Your task to perform on an android device: Open calendar and show me the second week of next month Image 0: 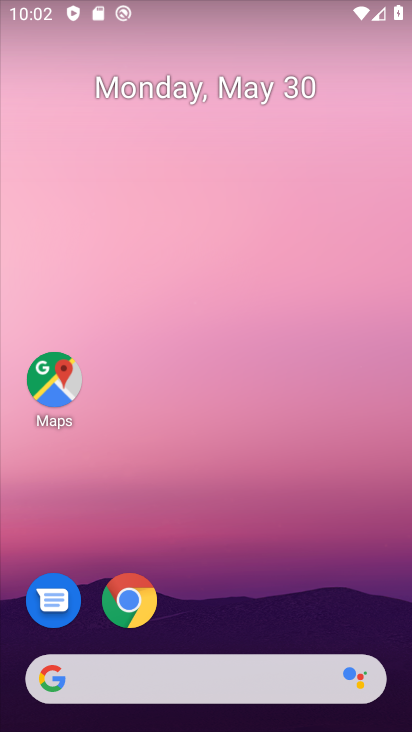
Step 0: drag from (260, 636) to (356, 55)
Your task to perform on an android device: Open calendar and show me the second week of next month Image 1: 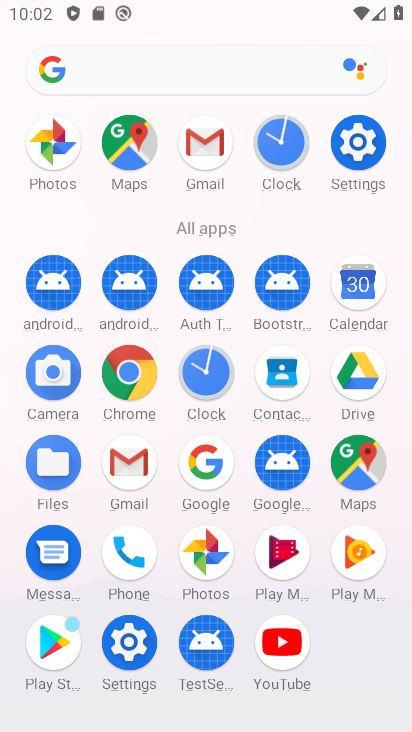
Step 1: click (354, 288)
Your task to perform on an android device: Open calendar and show me the second week of next month Image 2: 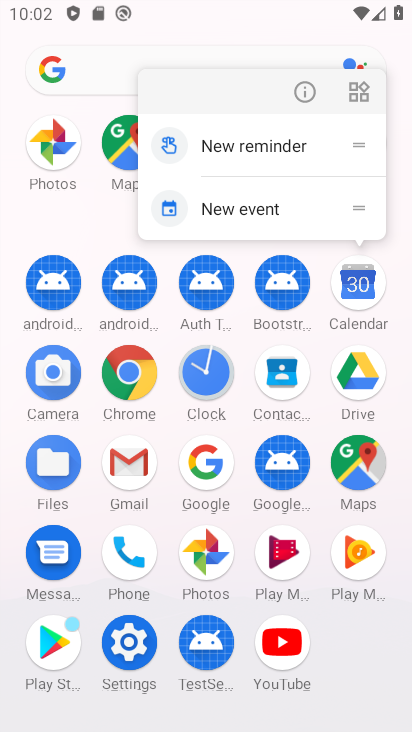
Step 2: click (355, 287)
Your task to perform on an android device: Open calendar and show me the second week of next month Image 3: 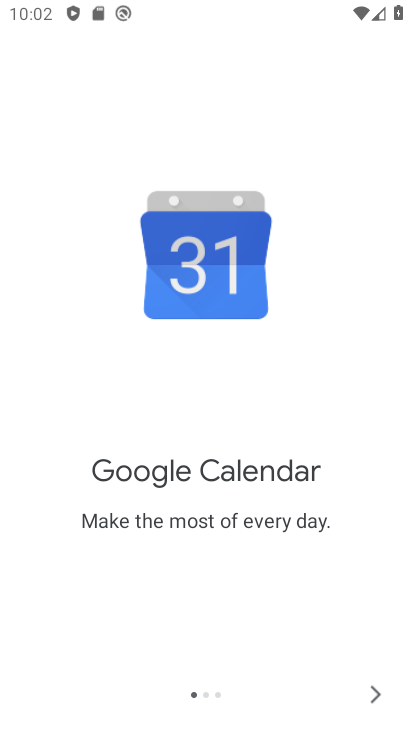
Step 3: click (375, 700)
Your task to perform on an android device: Open calendar and show me the second week of next month Image 4: 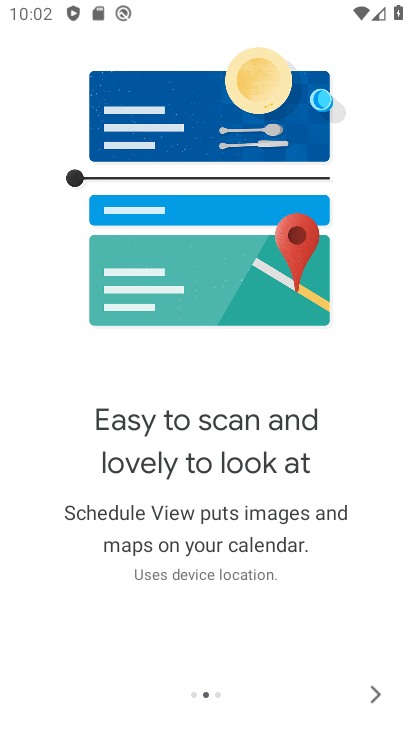
Step 4: click (374, 699)
Your task to perform on an android device: Open calendar and show me the second week of next month Image 5: 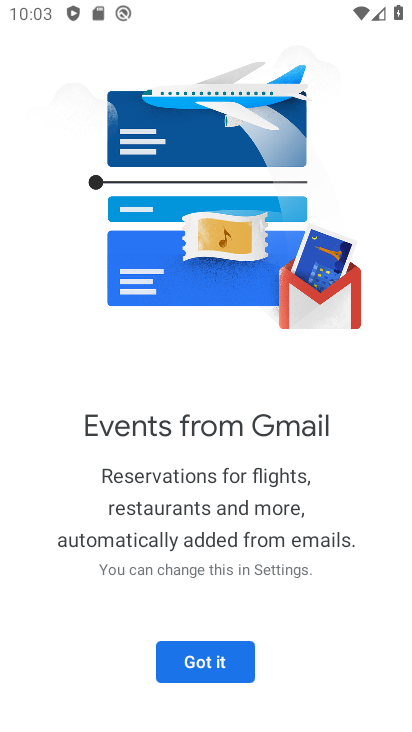
Step 5: click (205, 665)
Your task to perform on an android device: Open calendar and show me the second week of next month Image 6: 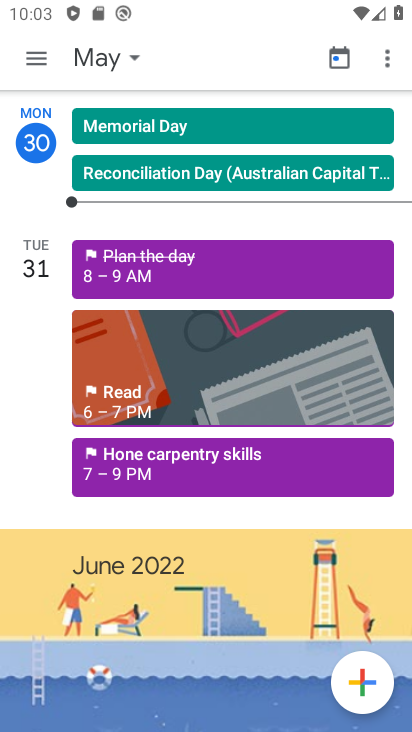
Step 6: click (88, 60)
Your task to perform on an android device: Open calendar and show me the second week of next month Image 7: 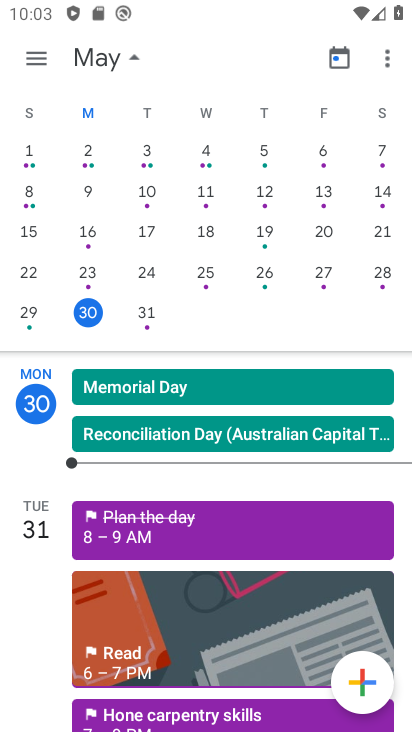
Step 7: drag from (355, 314) to (4, 266)
Your task to perform on an android device: Open calendar and show me the second week of next month Image 8: 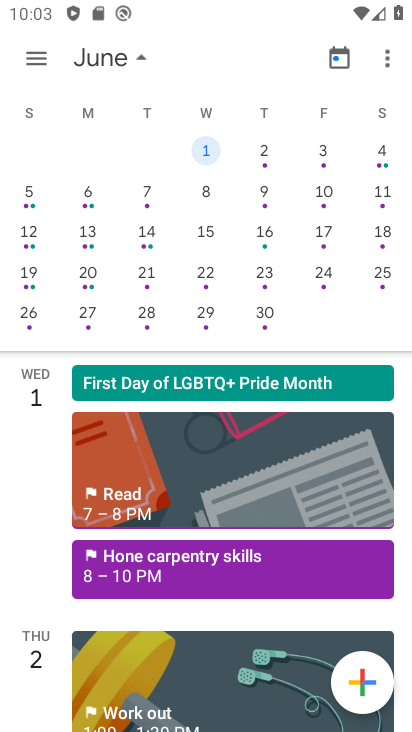
Step 8: click (34, 239)
Your task to perform on an android device: Open calendar and show me the second week of next month Image 9: 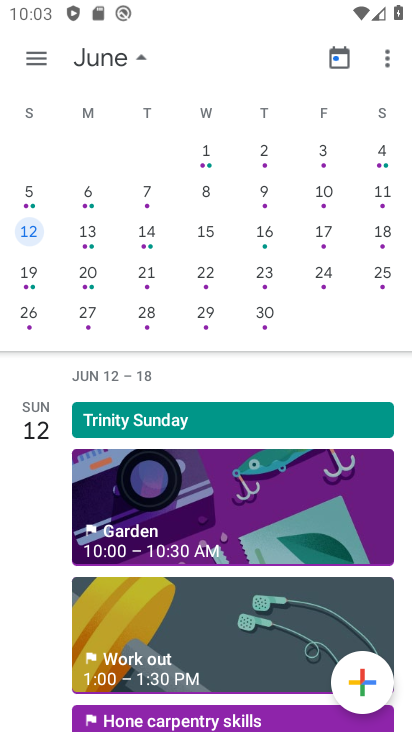
Step 9: click (49, 58)
Your task to perform on an android device: Open calendar and show me the second week of next month Image 10: 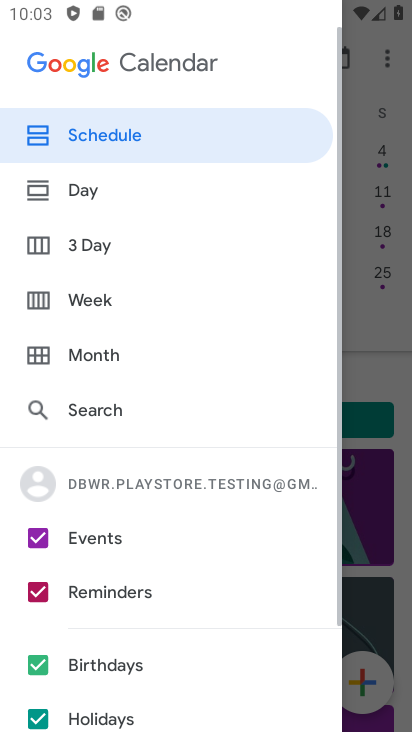
Step 10: click (126, 298)
Your task to perform on an android device: Open calendar and show me the second week of next month Image 11: 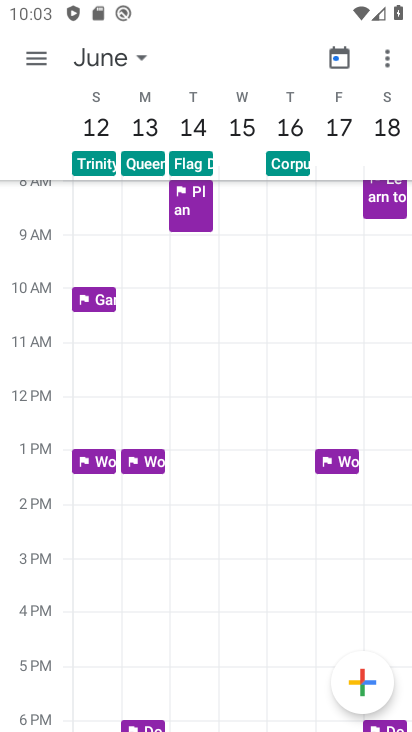
Step 11: task complete